Your task to perform on an android device: Go to Google maps Image 0: 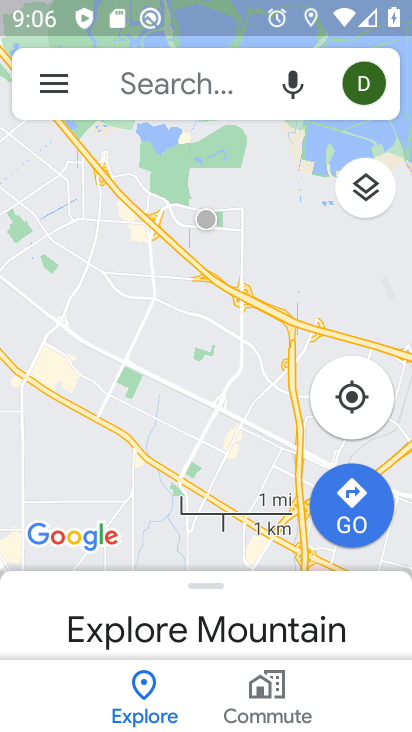
Step 0: press home button
Your task to perform on an android device: Go to Google maps Image 1: 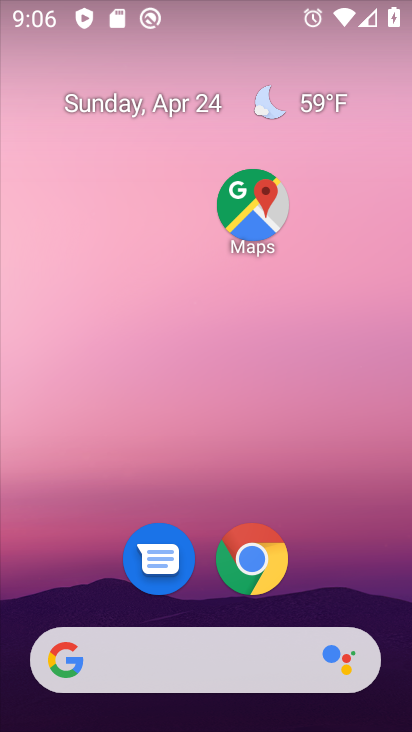
Step 1: click (249, 207)
Your task to perform on an android device: Go to Google maps Image 2: 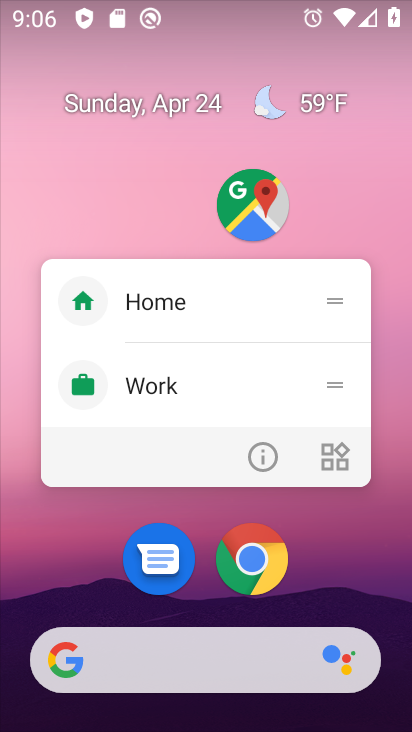
Step 2: click (266, 451)
Your task to perform on an android device: Go to Google maps Image 3: 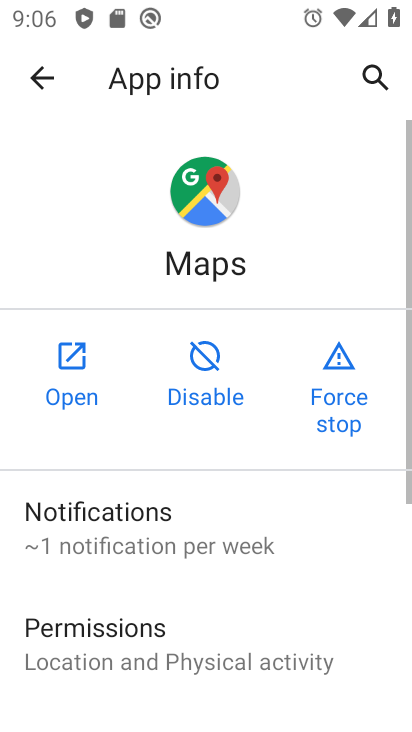
Step 3: click (58, 363)
Your task to perform on an android device: Go to Google maps Image 4: 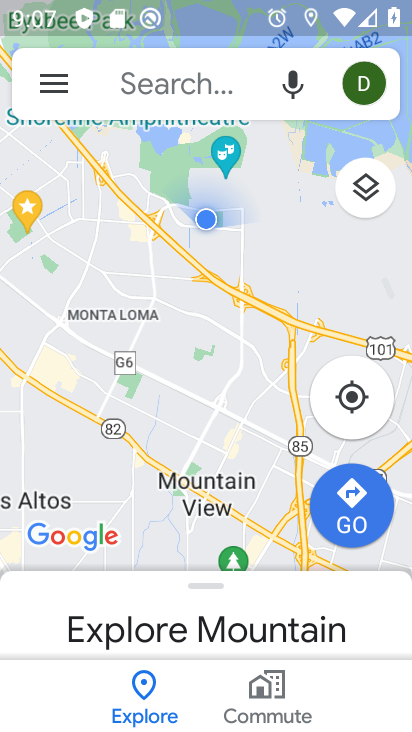
Step 4: task complete